Your task to perform on an android device: open app "Pluto TV - Live TV and Movies" Image 0: 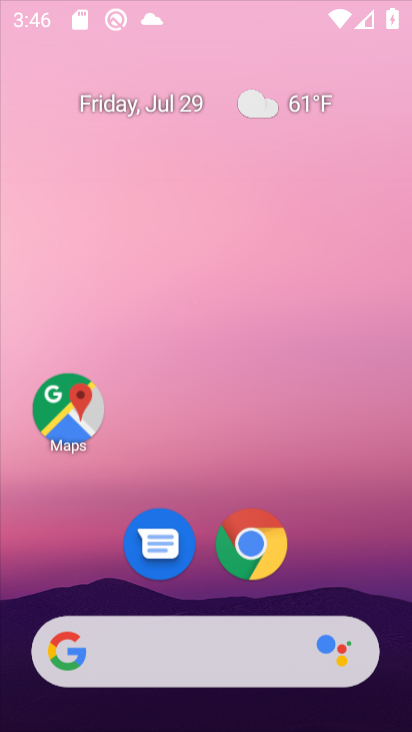
Step 0: drag from (219, 564) to (218, 331)
Your task to perform on an android device: open app "Pluto TV - Live TV and Movies" Image 1: 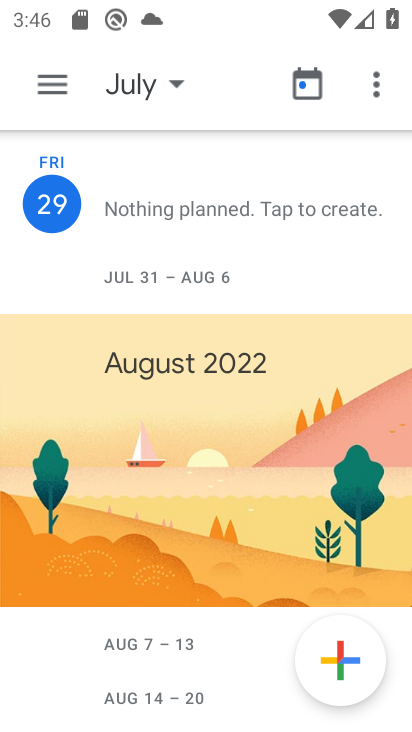
Step 1: task complete